Your task to perform on an android device: Go to Wikipedia Image 0: 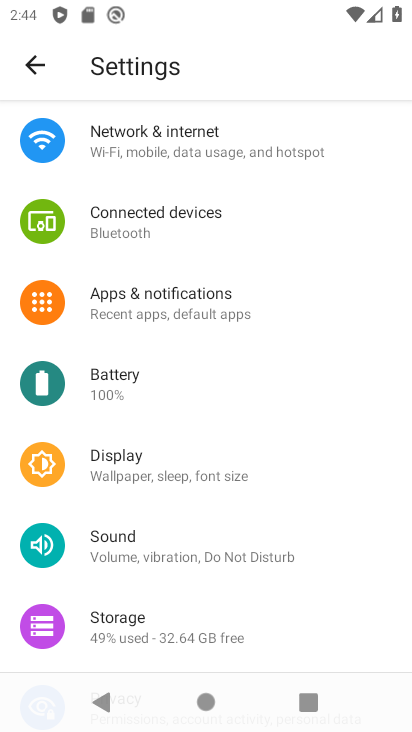
Step 0: press home button
Your task to perform on an android device: Go to Wikipedia Image 1: 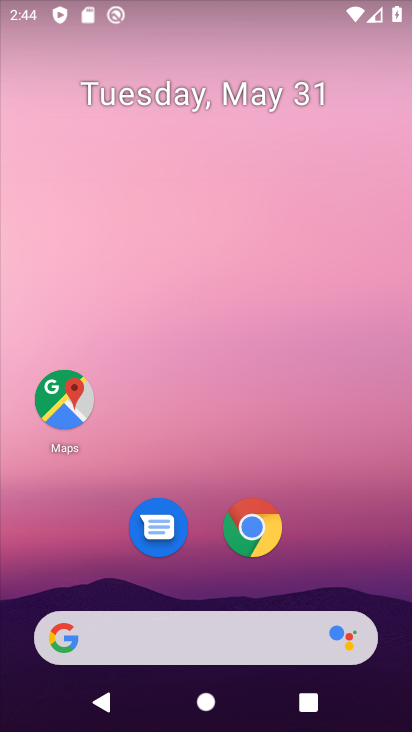
Step 1: click (226, 643)
Your task to perform on an android device: Go to Wikipedia Image 2: 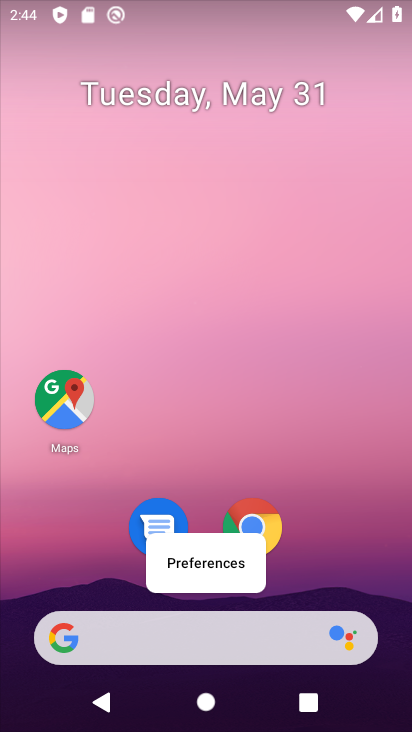
Step 2: click (226, 643)
Your task to perform on an android device: Go to Wikipedia Image 3: 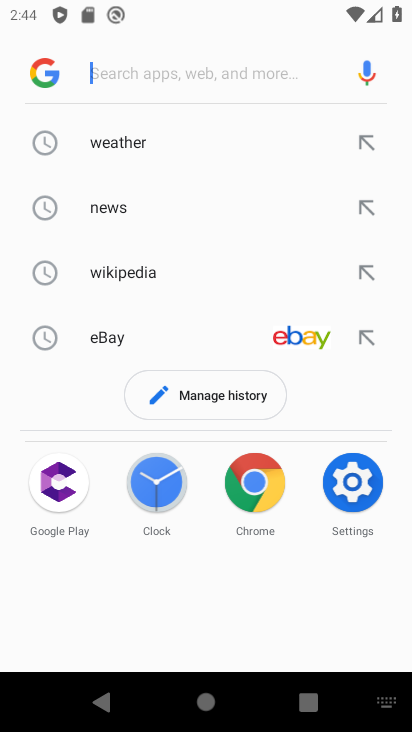
Step 3: click (124, 282)
Your task to perform on an android device: Go to Wikipedia Image 4: 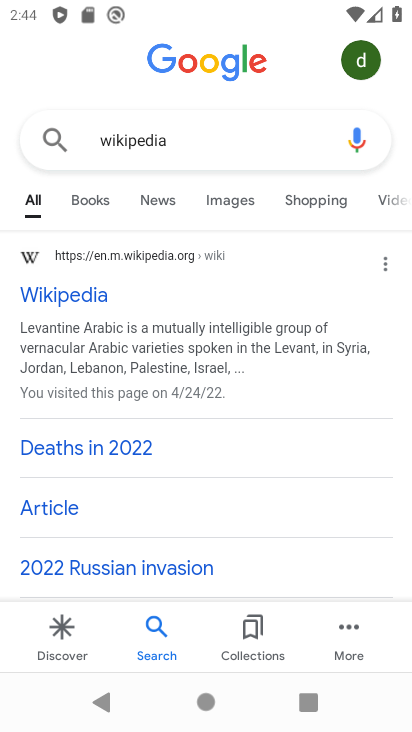
Step 4: click (132, 251)
Your task to perform on an android device: Go to Wikipedia Image 5: 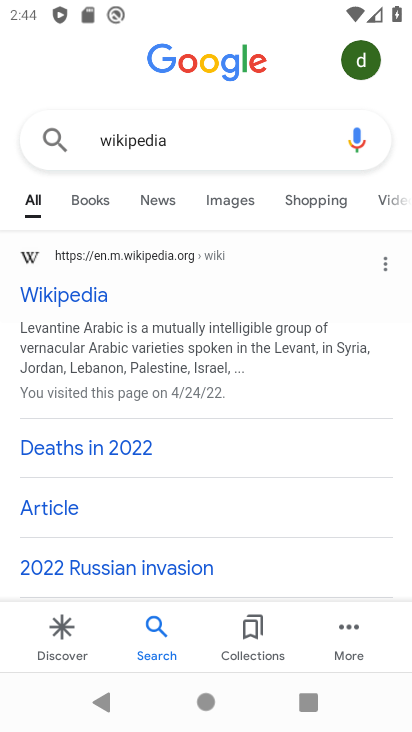
Step 5: click (78, 300)
Your task to perform on an android device: Go to Wikipedia Image 6: 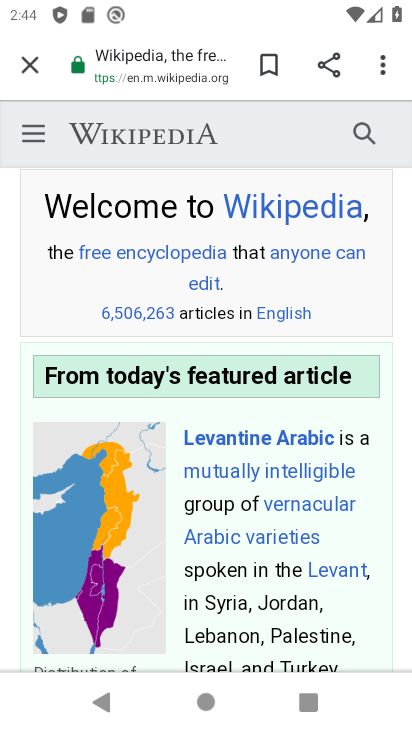
Step 6: task complete